Your task to perform on an android device: Turn off the flashlight Image 0: 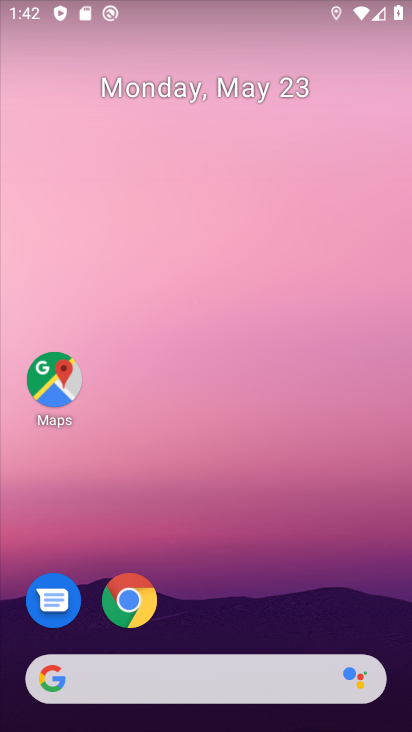
Step 0: drag from (287, 7) to (319, 408)
Your task to perform on an android device: Turn off the flashlight Image 1: 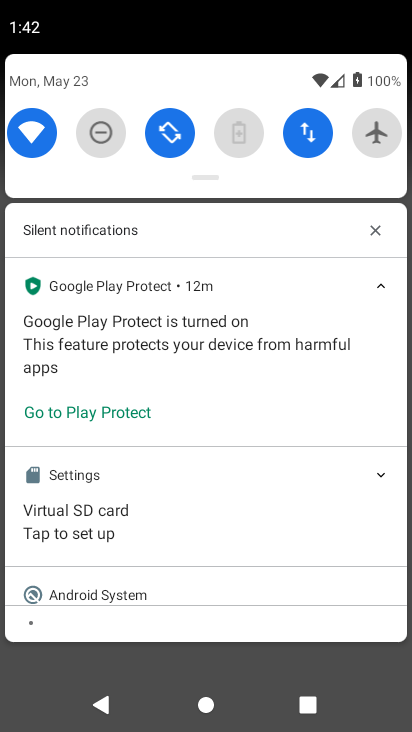
Step 1: drag from (206, 155) to (266, 558)
Your task to perform on an android device: Turn off the flashlight Image 2: 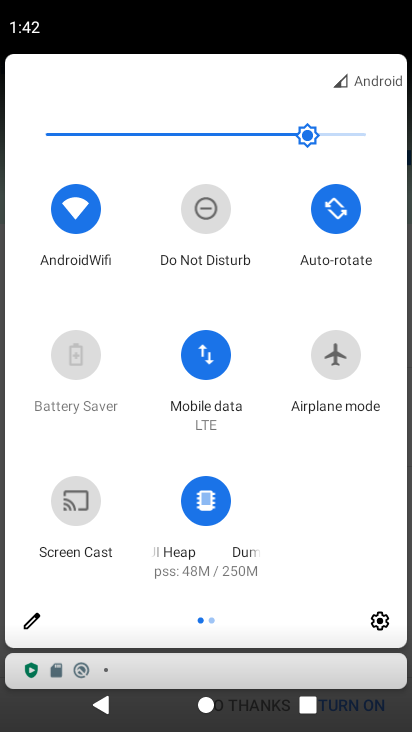
Step 2: click (25, 615)
Your task to perform on an android device: Turn off the flashlight Image 3: 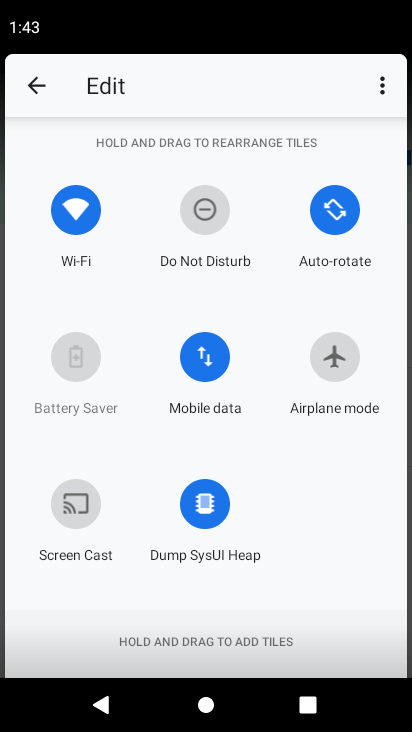
Step 3: task complete